Your task to perform on an android device: turn on the 12-hour format for clock Image 0: 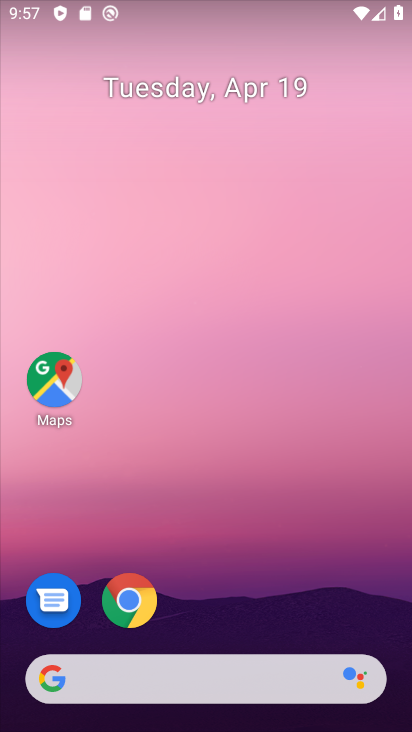
Step 0: drag from (218, 520) to (411, 55)
Your task to perform on an android device: turn on the 12-hour format for clock Image 1: 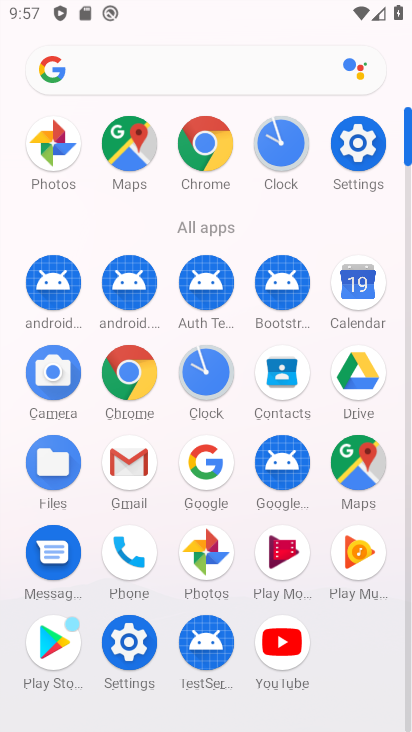
Step 1: click (365, 156)
Your task to perform on an android device: turn on the 12-hour format for clock Image 2: 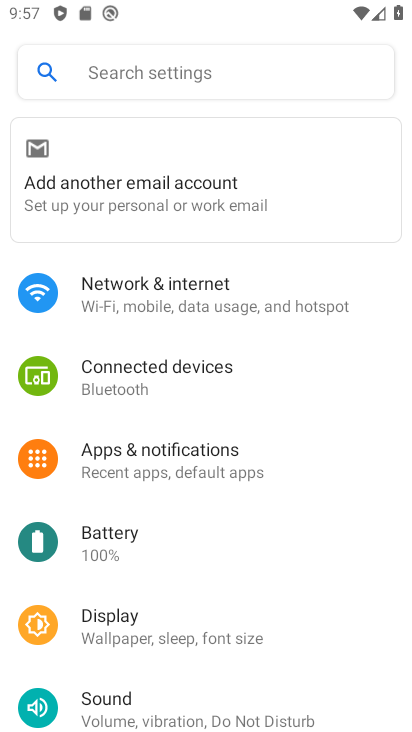
Step 2: drag from (199, 651) to (294, 168)
Your task to perform on an android device: turn on the 12-hour format for clock Image 3: 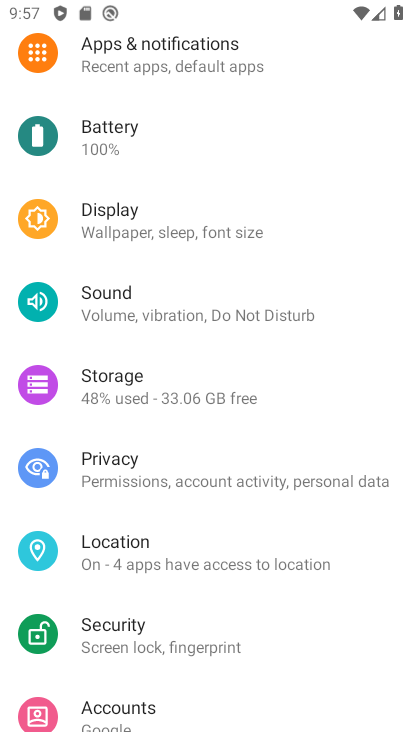
Step 3: drag from (210, 583) to (264, 245)
Your task to perform on an android device: turn on the 12-hour format for clock Image 4: 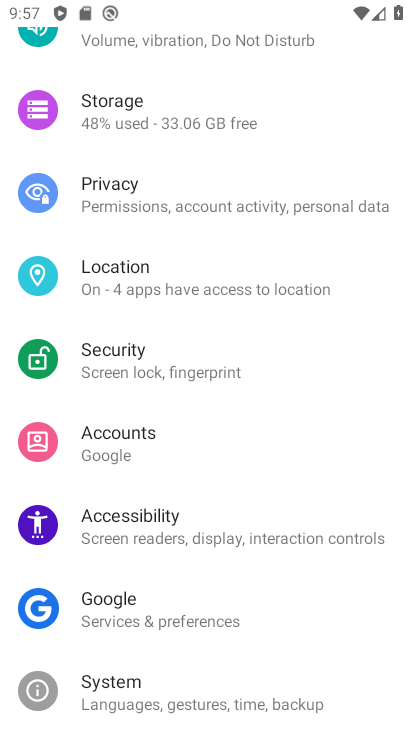
Step 4: click (140, 690)
Your task to perform on an android device: turn on the 12-hour format for clock Image 5: 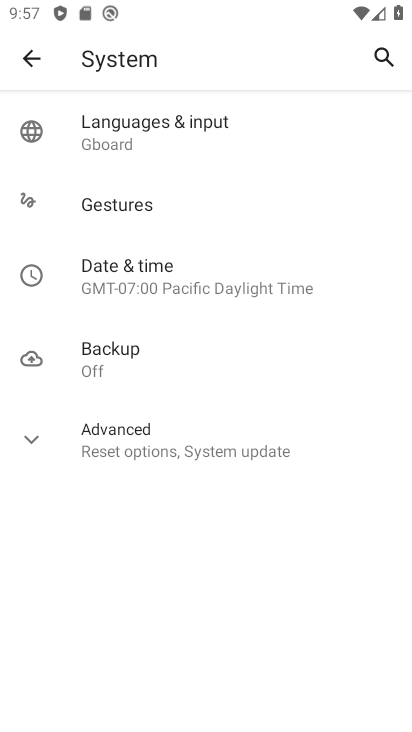
Step 5: click (202, 286)
Your task to perform on an android device: turn on the 12-hour format for clock Image 6: 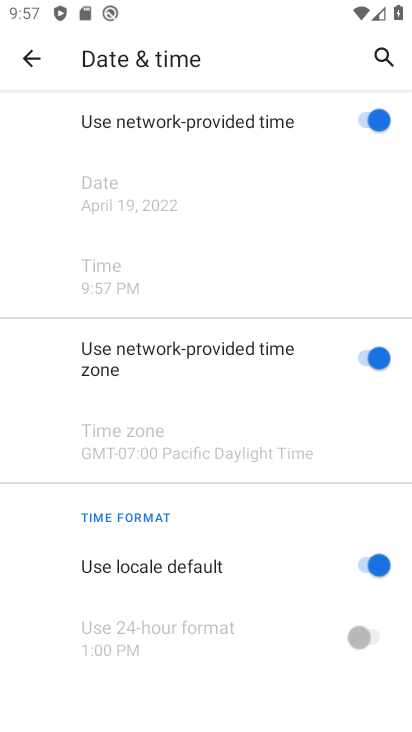
Step 6: task complete